Your task to perform on an android device: Go to accessibility settings Image 0: 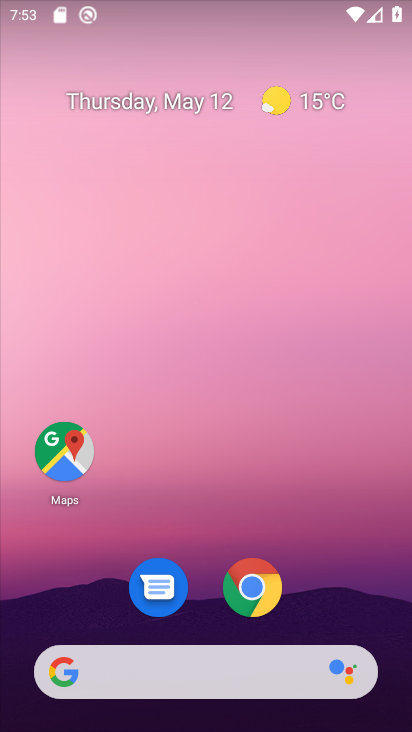
Step 0: drag from (350, 587) to (247, 187)
Your task to perform on an android device: Go to accessibility settings Image 1: 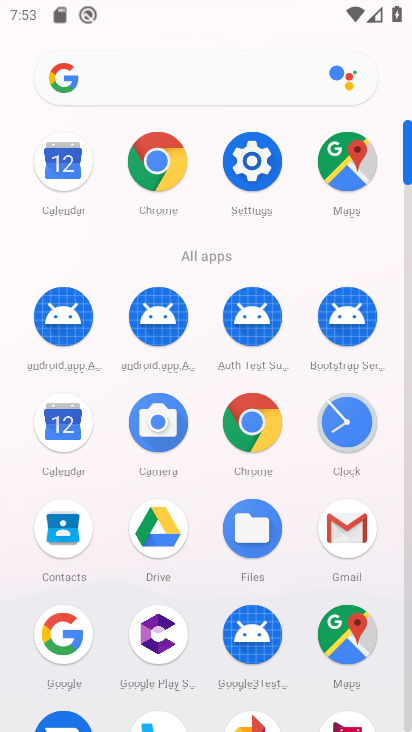
Step 1: click (254, 162)
Your task to perform on an android device: Go to accessibility settings Image 2: 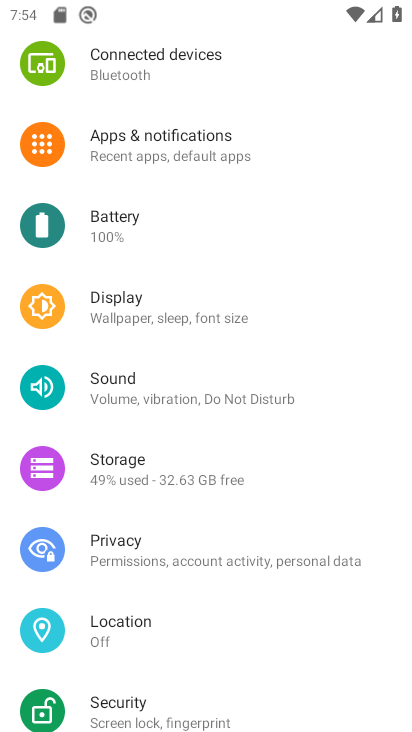
Step 2: drag from (157, 697) to (265, 185)
Your task to perform on an android device: Go to accessibility settings Image 3: 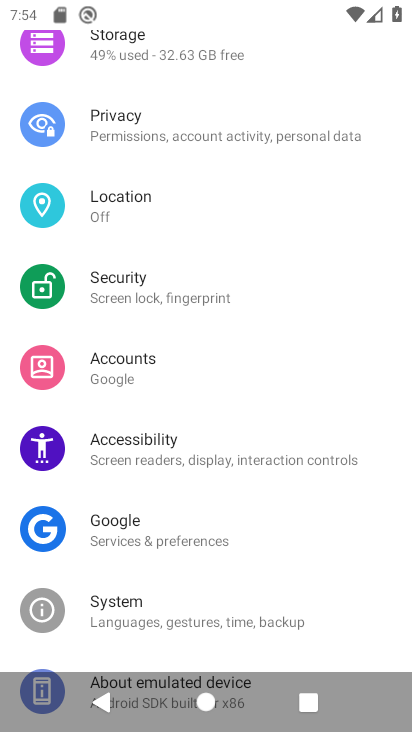
Step 3: click (161, 452)
Your task to perform on an android device: Go to accessibility settings Image 4: 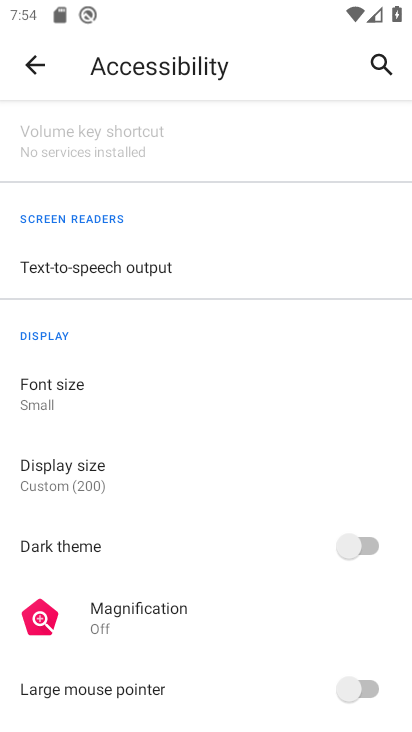
Step 4: task complete